Your task to perform on an android device: turn off smart reply in the gmail app Image 0: 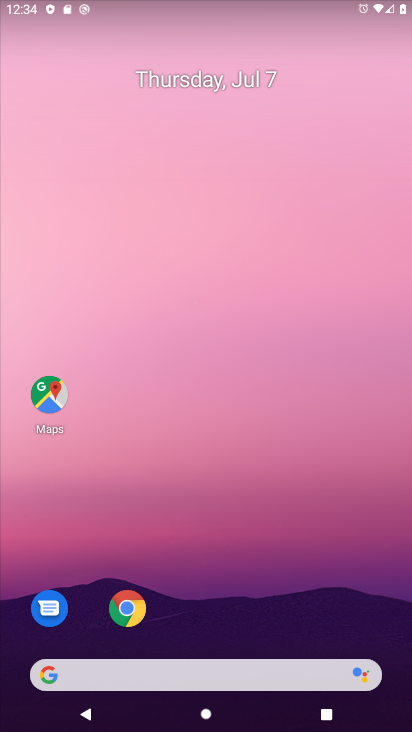
Step 0: drag from (215, 633) to (313, 8)
Your task to perform on an android device: turn off smart reply in the gmail app Image 1: 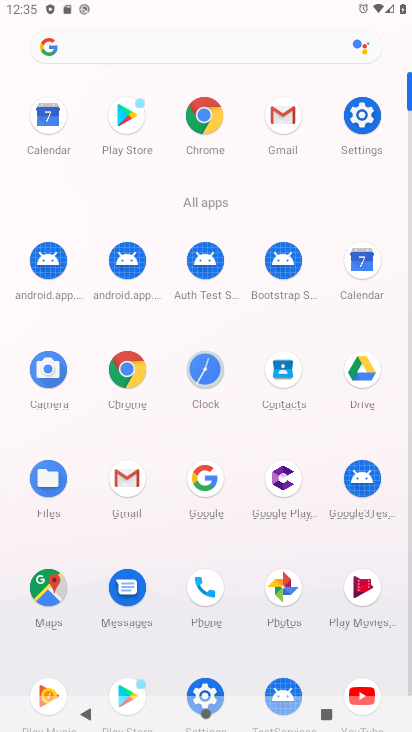
Step 1: click (294, 110)
Your task to perform on an android device: turn off smart reply in the gmail app Image 2: 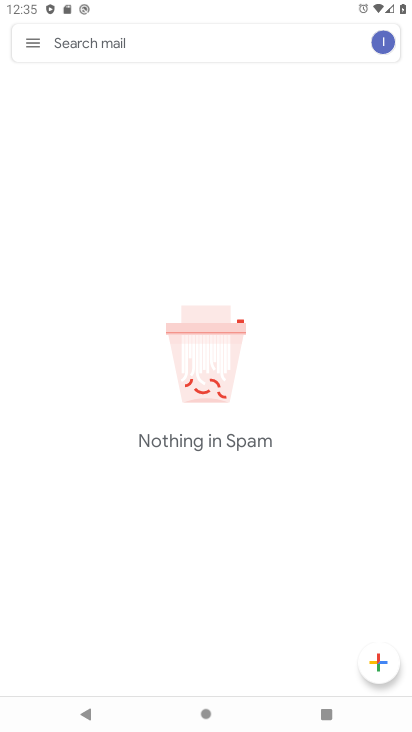
Step 2: click (30, 38)
Your task to perform on an android device: turn off smart reply in the gmail app Image 3: 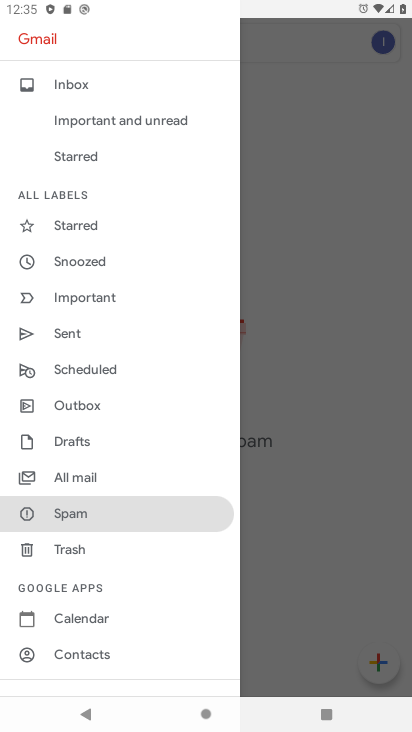
Step 3: drag from (93, 619) to (161, 132)
Your task to perform on an android device: turn off smart reply in the gmail app Image 4: 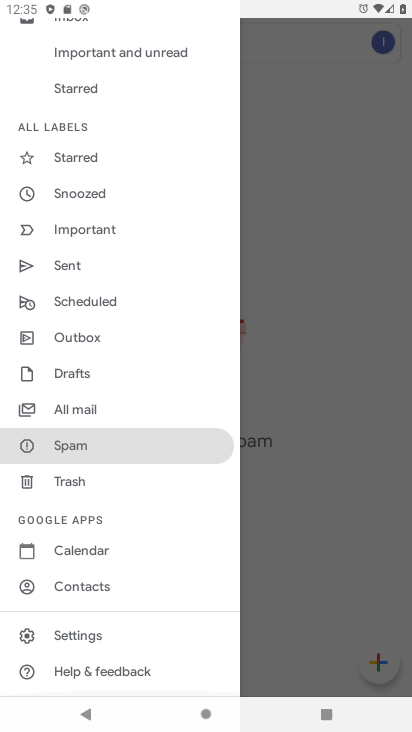
Step 4: click (91, 627)
Your task to perform on an android device: turn off smart reply in the gmail app Image 5: 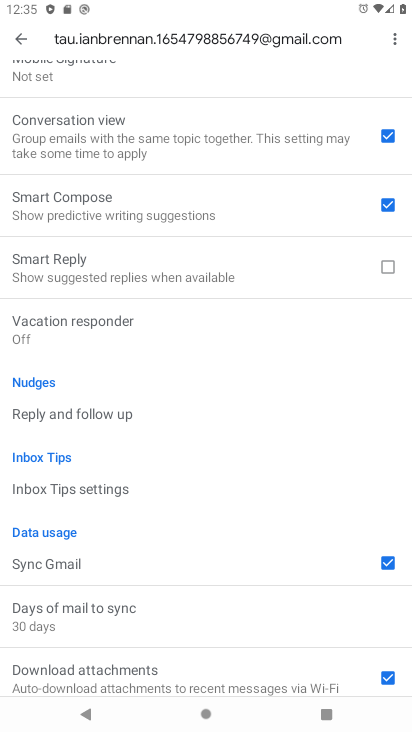
Step 5: task complete